Your task to perform on an android device: change timer sound Image 0: 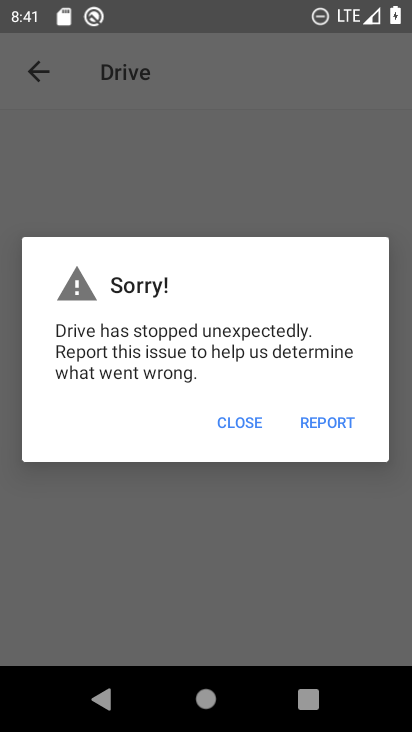
Step 0: press home button
Your task to perform on an android device: change timer sound Image 1: 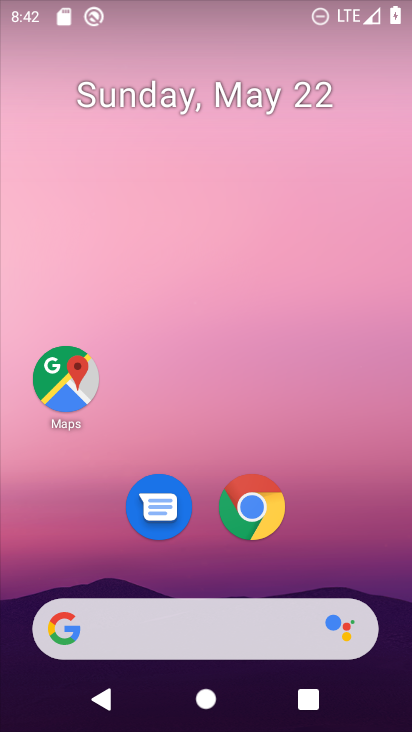
Step 1: drag from (122, 323) to (244, 17)
Your task to perform on an android device: change timer sound Image 2: 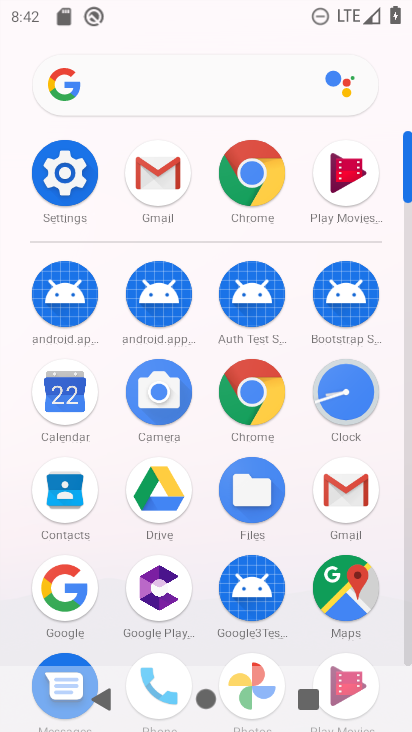
Step 2: click (321, 407)
Your task to perform on an android device: change timer sound Image 3: 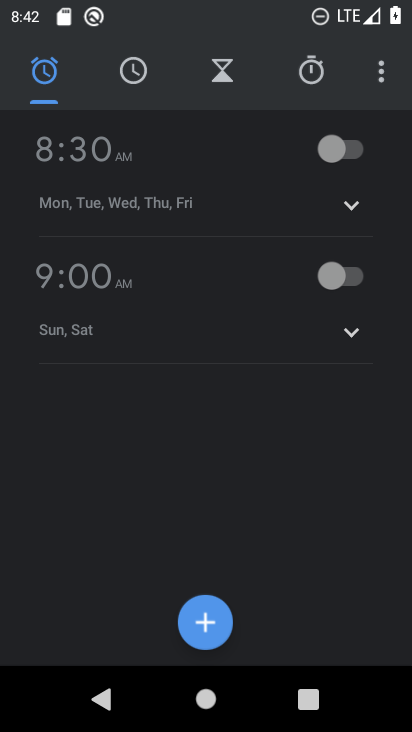
Step 3: click (375, 69)
Your task to perform on an android device: change timer sound Image 4: 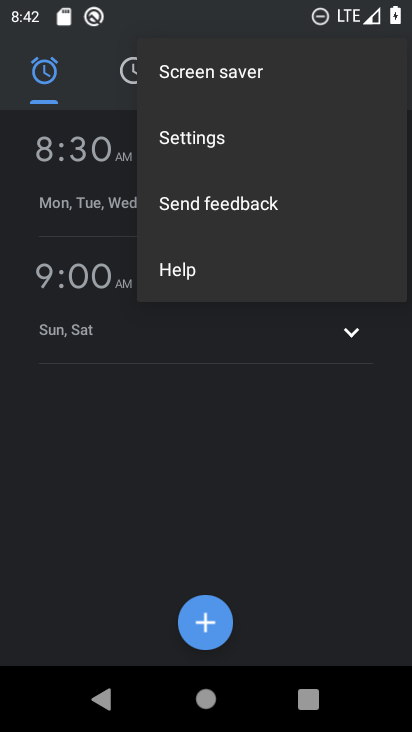
Step 4: click (196, 131)
Your task to perform on an android device: change timer sound Image 5: 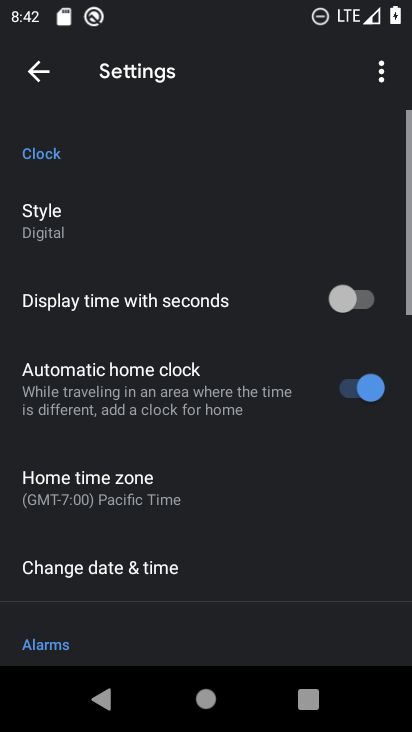
Step 5: drag from (229, 518) to (108, 26)
Your task to perform on an android device: change timer sound Image 6: 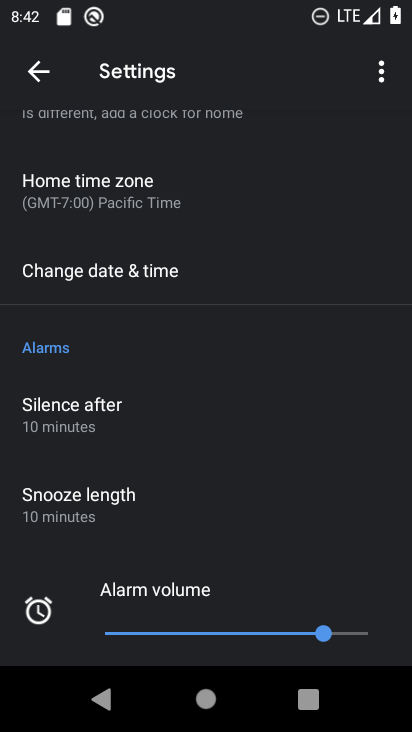
Step 6: drag from (248, 348) to (234, 36)
Your task to perform on an android device: change timer sound Image 7: 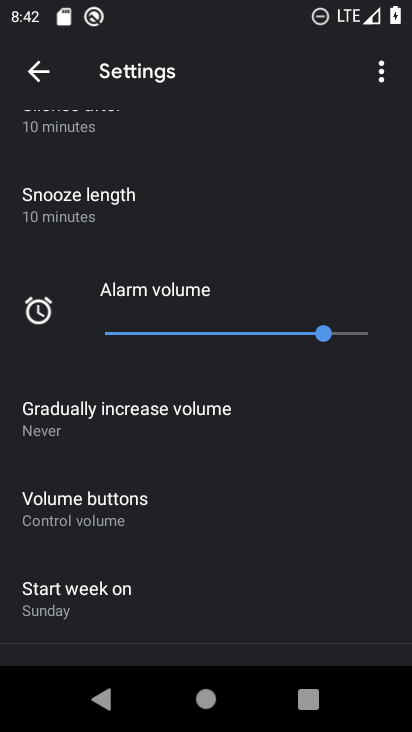
Step 7: drag from (176, 558) to (181, 40)
Your task to perform on an android device: change timer sound Image 8: 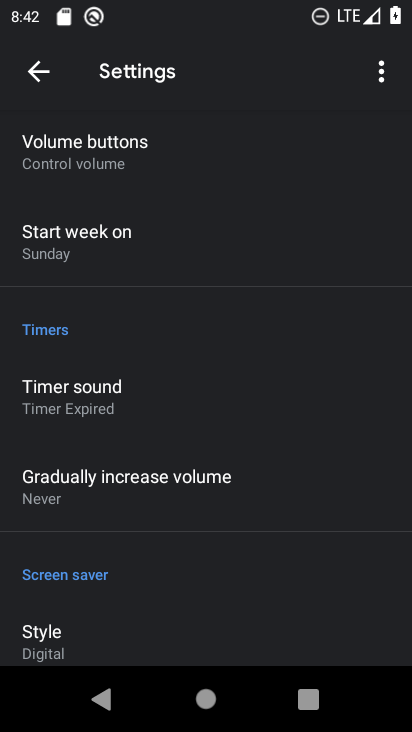
Step 8: click (81, 410)
Your task to perform on an android device: change timer sound Image 9: 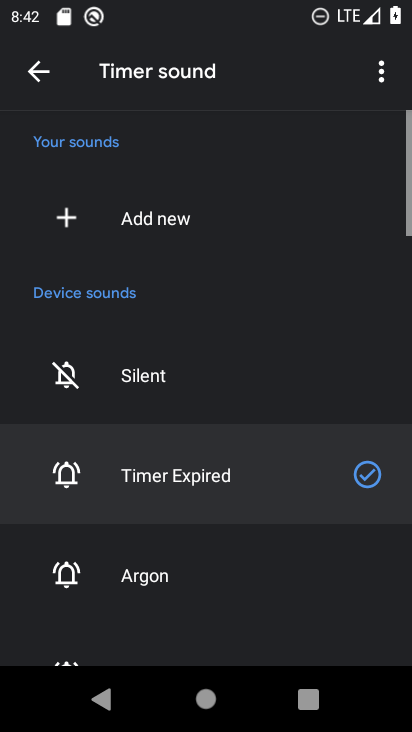
Step 9: click (125, 585)
Your task to perform on an android device: change timer sound Image 10: 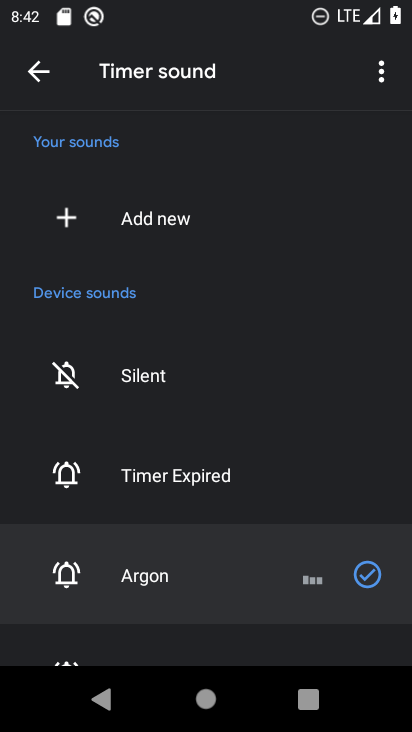
Step 10: task complete